Your task to perform on an android device: open chrome privacy settings Image 0: 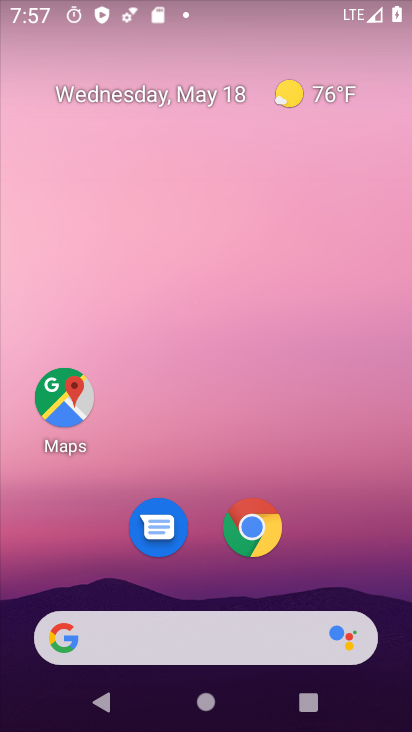
Step 0: click (246, 527)
Your task to perform on an android device: open chrome privacy settings Image 1: 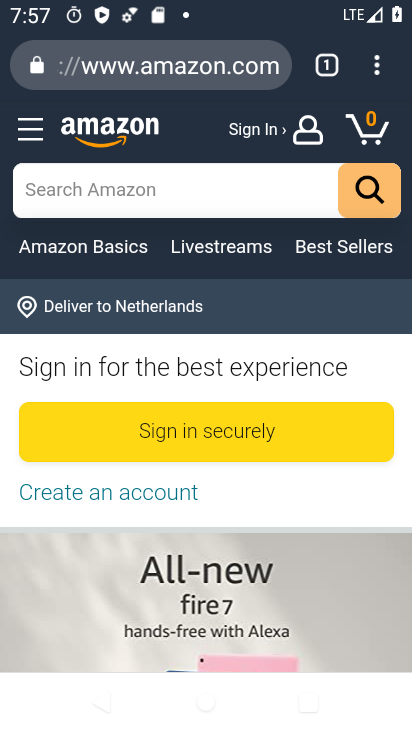
Step 1: click (374, 64)
Your task to perform on an android device: open chrome privacy settings Image 2: 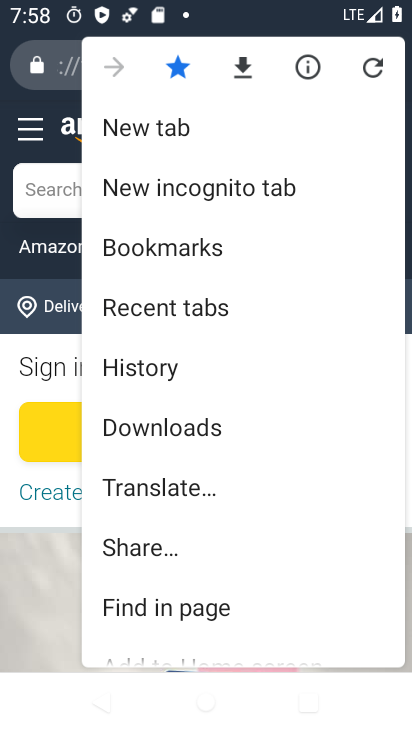
Step 2: drag from (313, 598) to (292, 329)
Your task to perform on an android device: open chrome privacy settings Image 3: 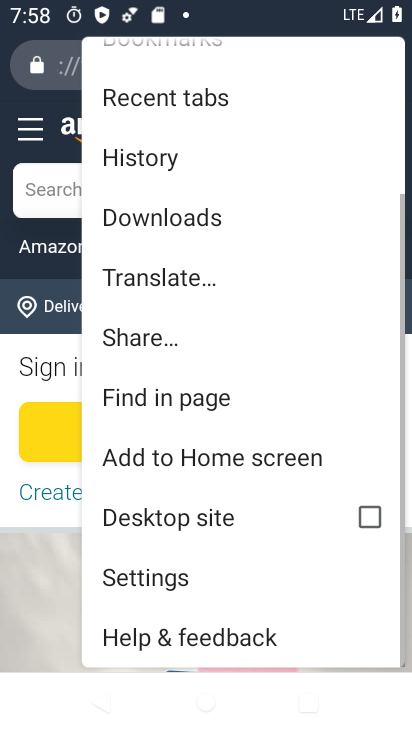
Step 3: click (133, 576)
Your task to perform on an android device: open chrome privacy settings Image 4: 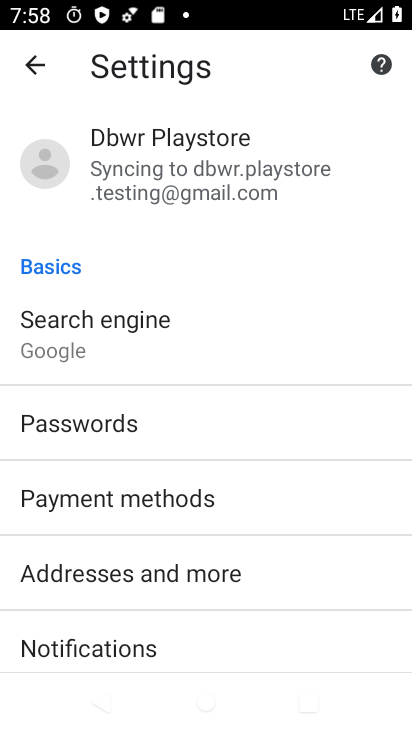
Step 4: drag from (296, 665) to (314, 309)
Your task to perform on an android device: open chrome privacy settings Image 5: 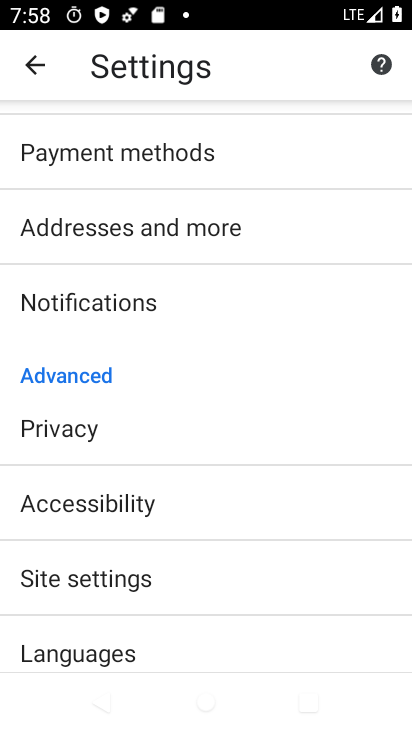
Step 5: click (49, 437)
Your task to perform on an android device: open chrome privacy settings Image 6: 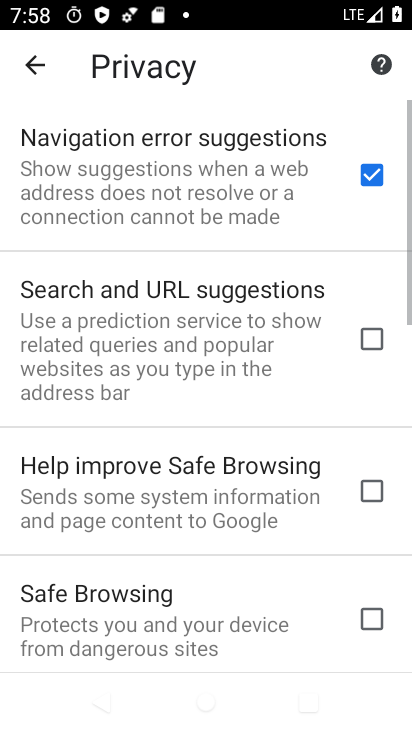
Step 6: task complete